Your task to perform on an android device: search for starred emails in the gmail app Image 0: 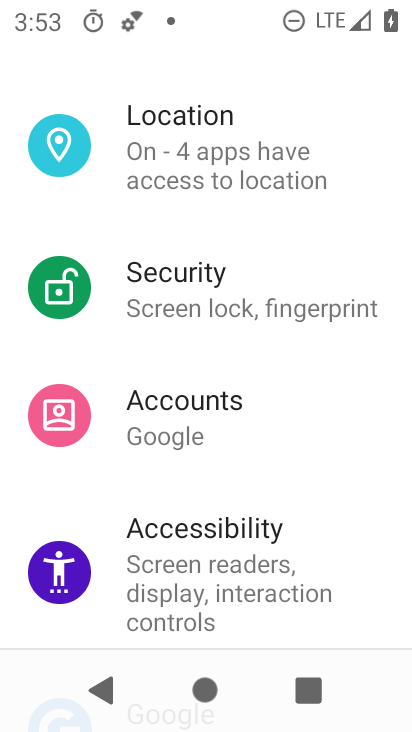
Step 0: press home button
Your task to perform on an android device: search for starred emails in the gmail app Image 1: 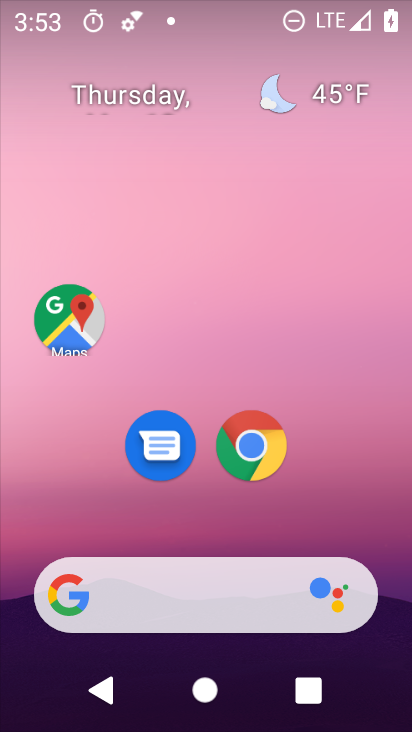
Step 1: drag from (345, 430) to (226, 77)
Your task to perform on an android device: search for starred emails in the gmail app Image 2: 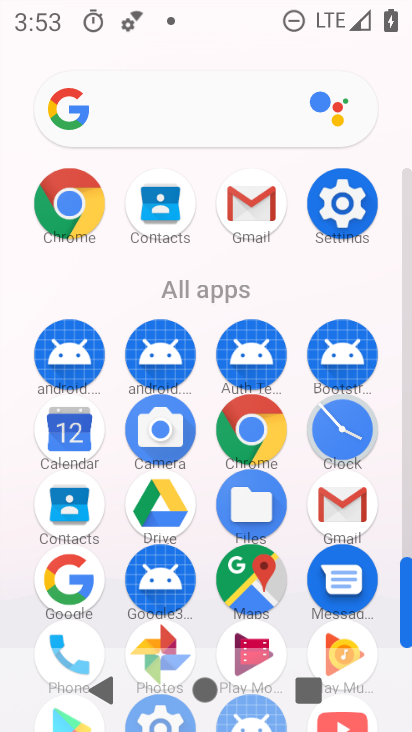
Step 2: click (252, 207)
Your task to perform on an android device: search for starred emails in the gmail app Image 3: 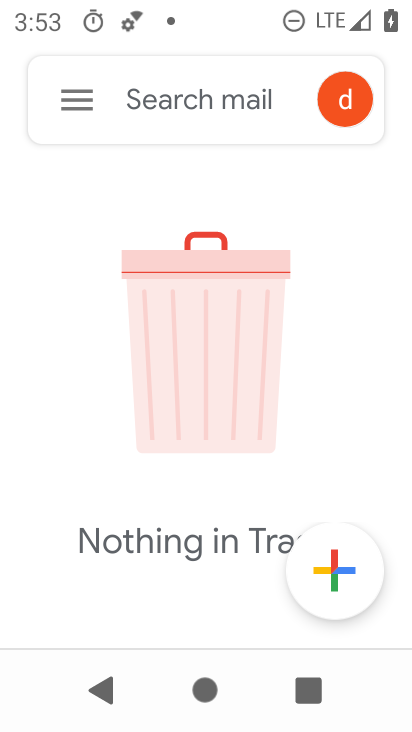
Step 3: click (74, 89)
Your task to perform on an android device: search for starred emails in the gmail app Image 4: 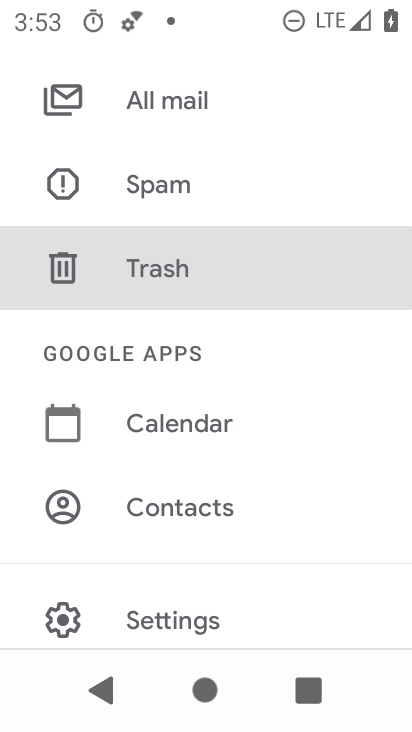
Step 4: drag from (168, 185) to (186, 370)
Your task to perform on an android device: search for starred emails in the gmail app Image 5: 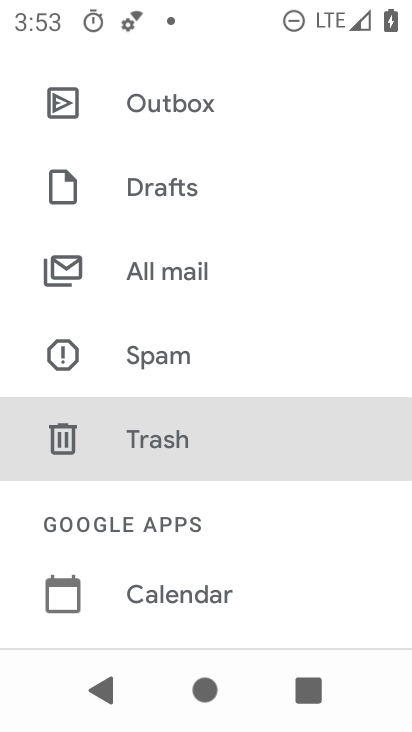
Step 5: drag from (229, 191) to (260, 324)
Your task to perform on an android device: search for starred emails in the gmail app Image 6: 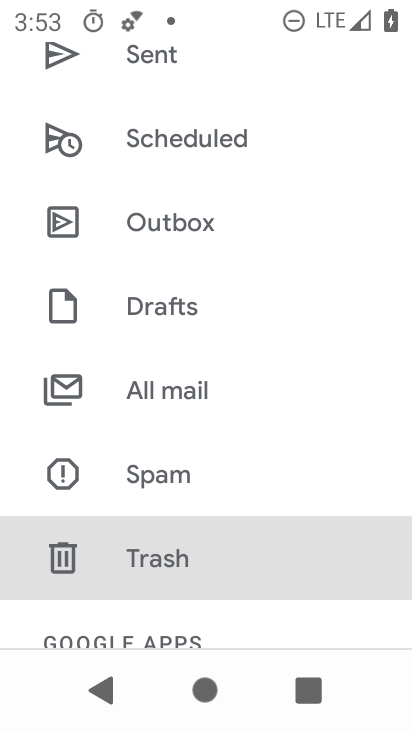
Step 6: drag from (200, 127) to (186, 341)
Your task to perform on an android device: search for starred emails in the gmail app Image 7: 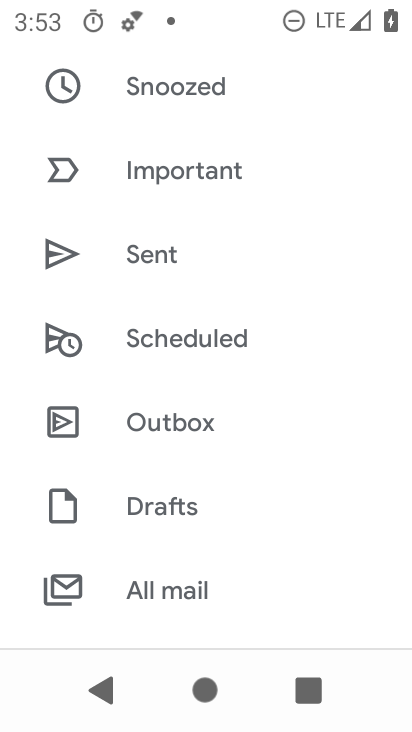
Step 7: drag from (213, 213) to (220, 404)
Your task to perform on an android device: search for starred emails in the gmail app Image 8: 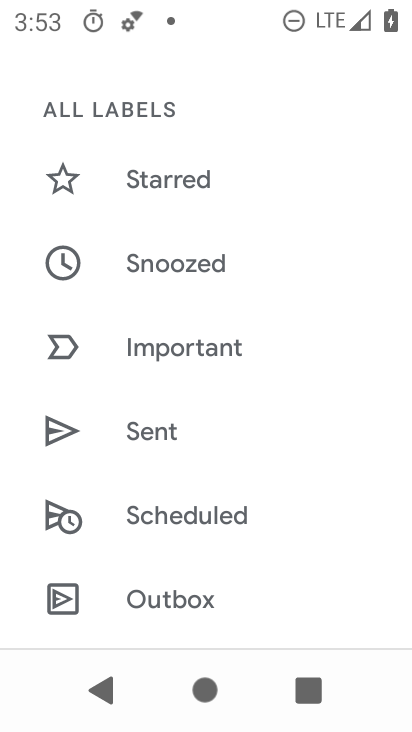
Step 8: click (188, 177)
Your task to perform on an android device: search for starred emails in the gmail app Image 9: 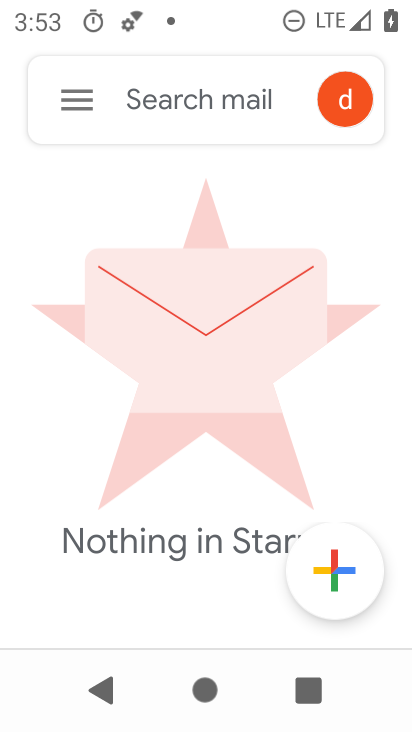
Step 9: task complete